Your task to perform on an android device: uninstall "Skype" Image 0: 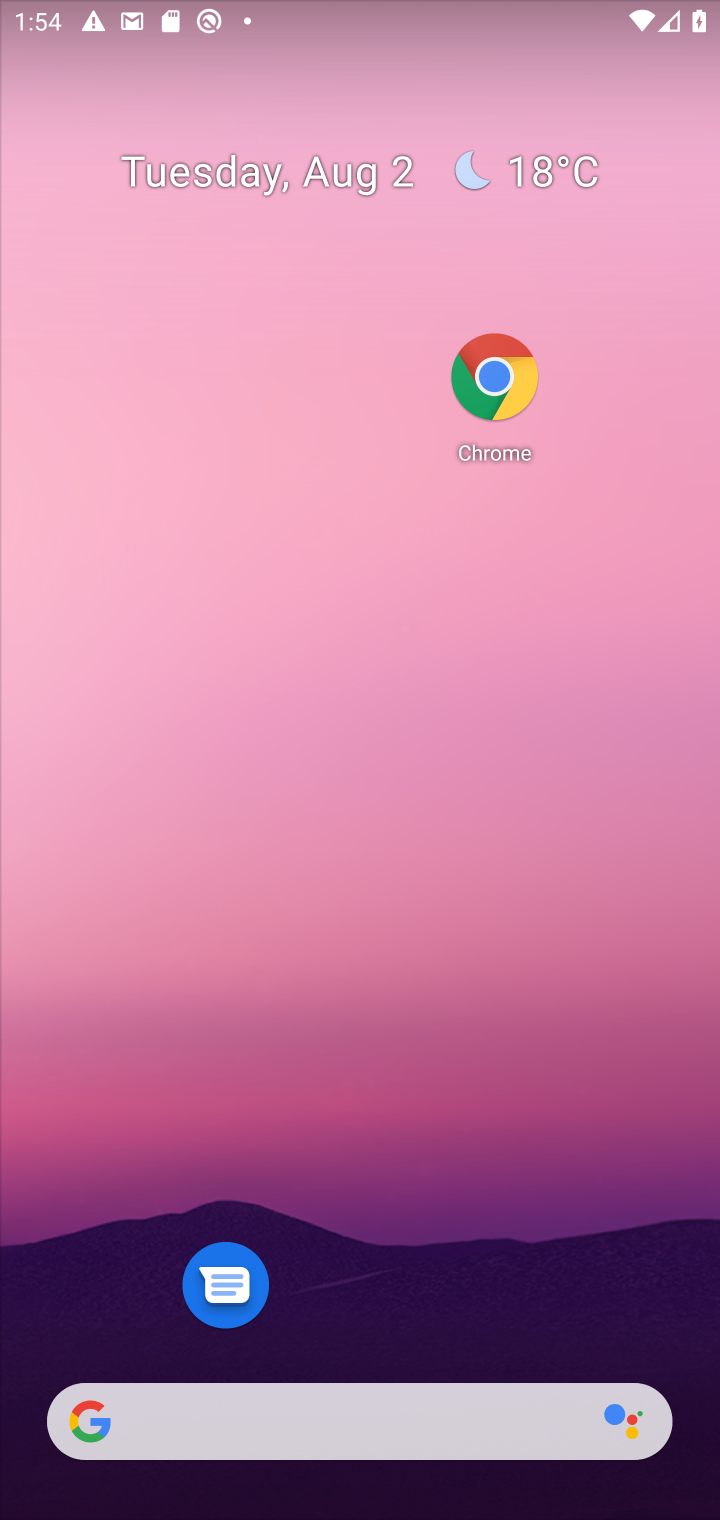
Step 0: press home button
Your task to perform on an android device: uninstall "Skype" Image 1: 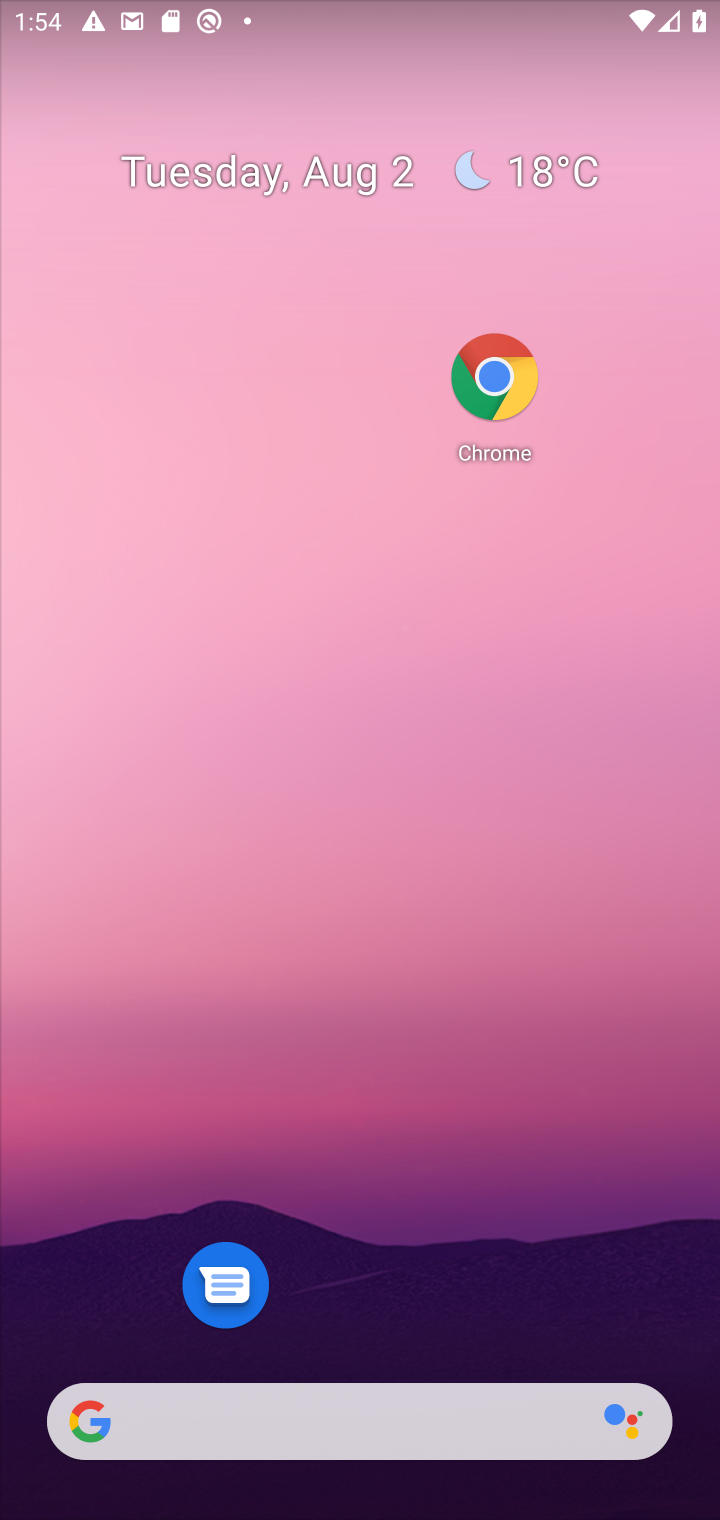
Step 1: drag from (432, 1268) to (644, 11)
Your task to perform on an android device: uninstall "Skype" Image 2: 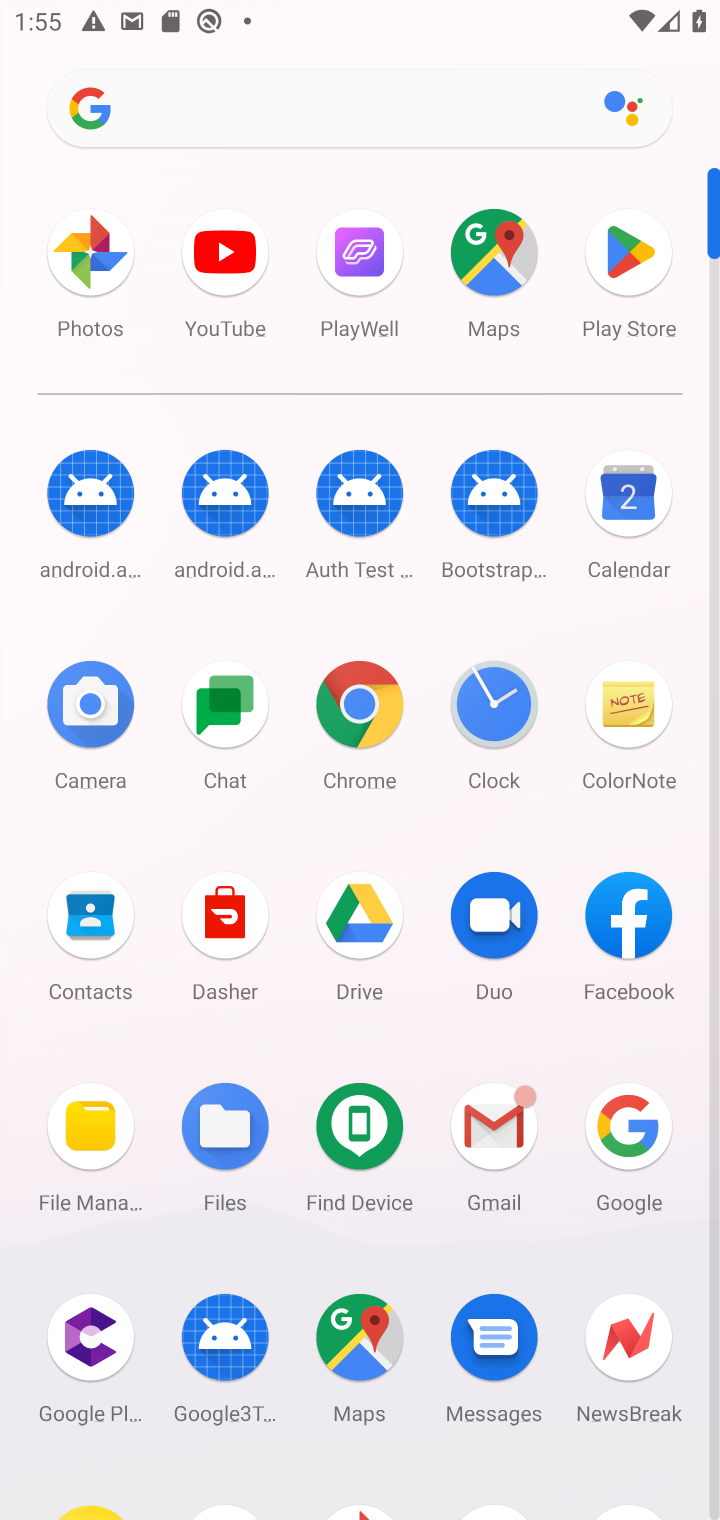
Step 2: click (638, 276)
Your task to perform on an android device: uninstall "Skype" Image 3: 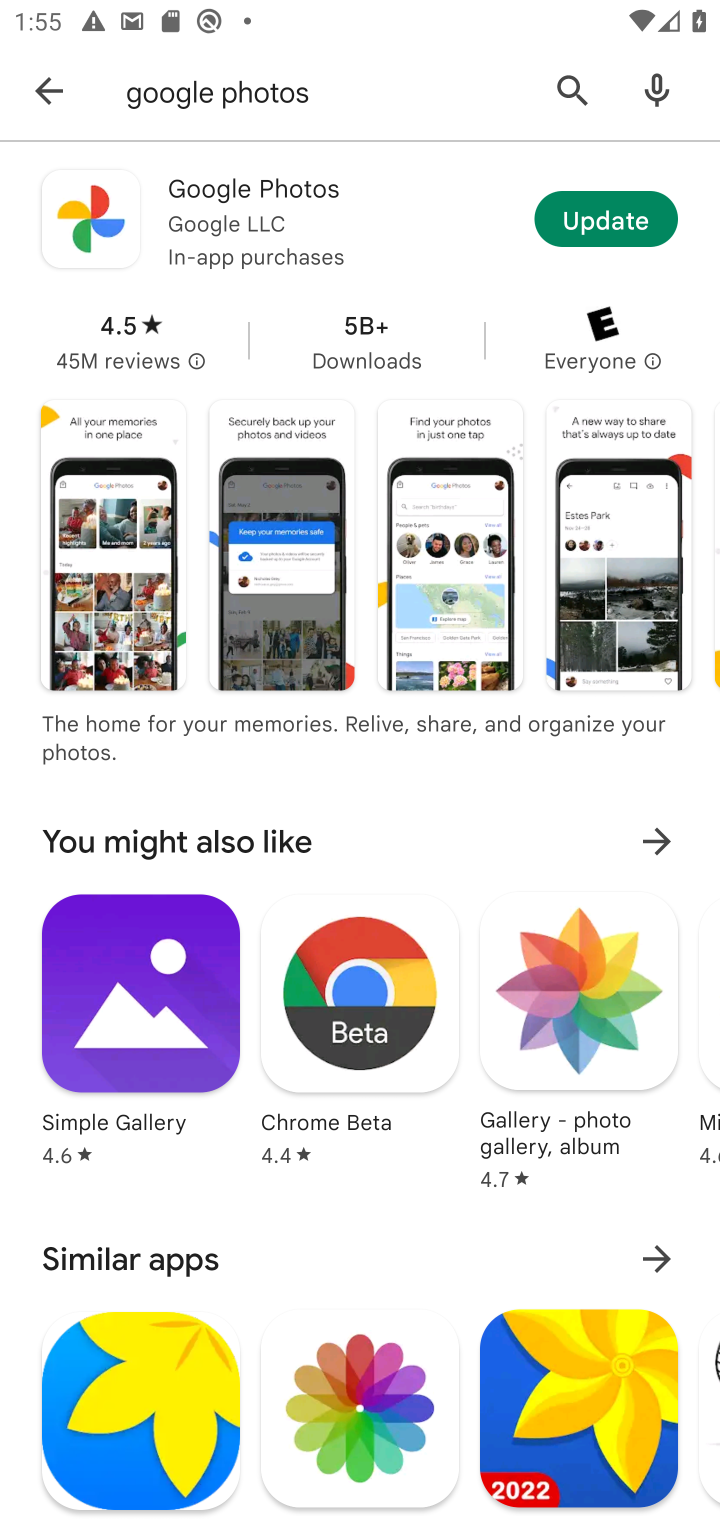
Step 3: click (578, 79)
Your task to perform on an android device: uninstall "Skype" Image 4: 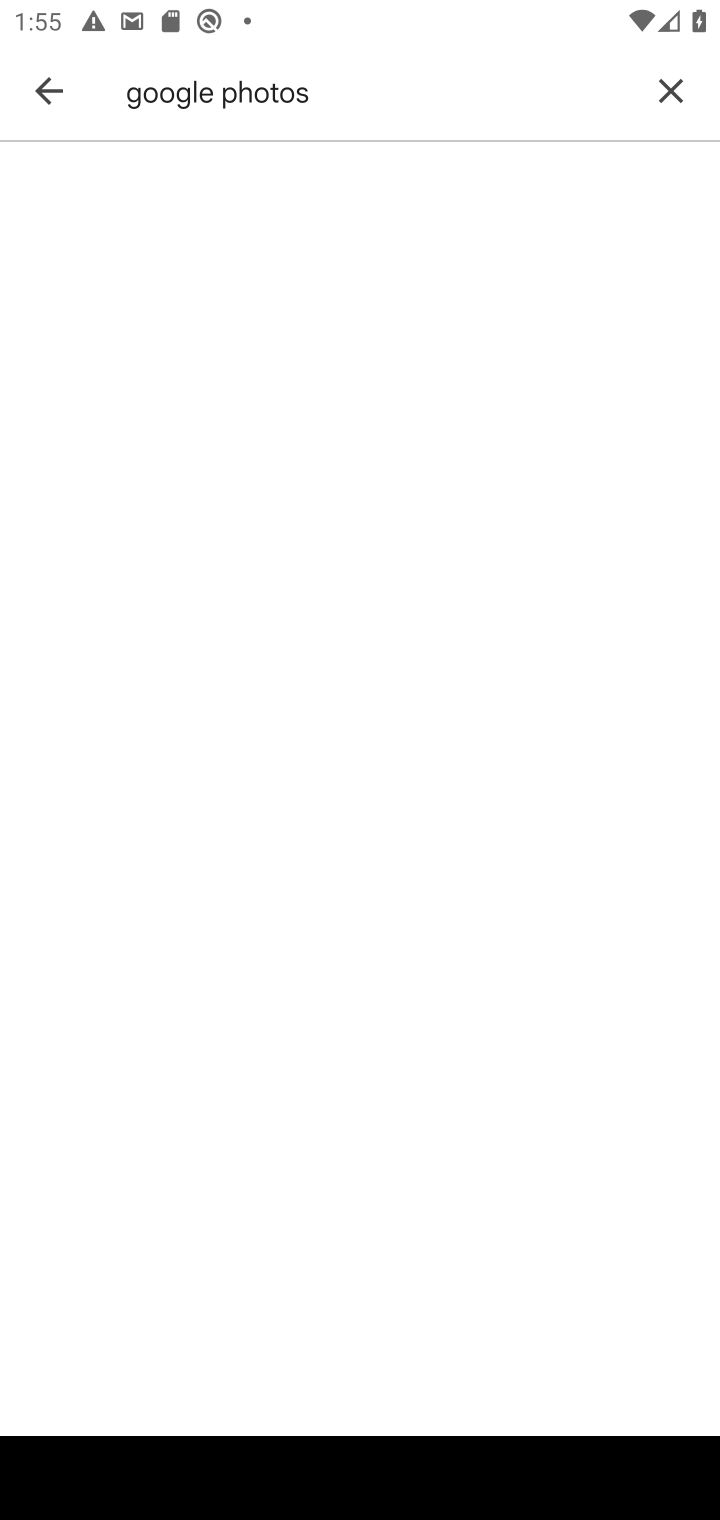
Step 4: click (666, 87)
Your task to perform on an android device: uninstall "Skype" Image 5: 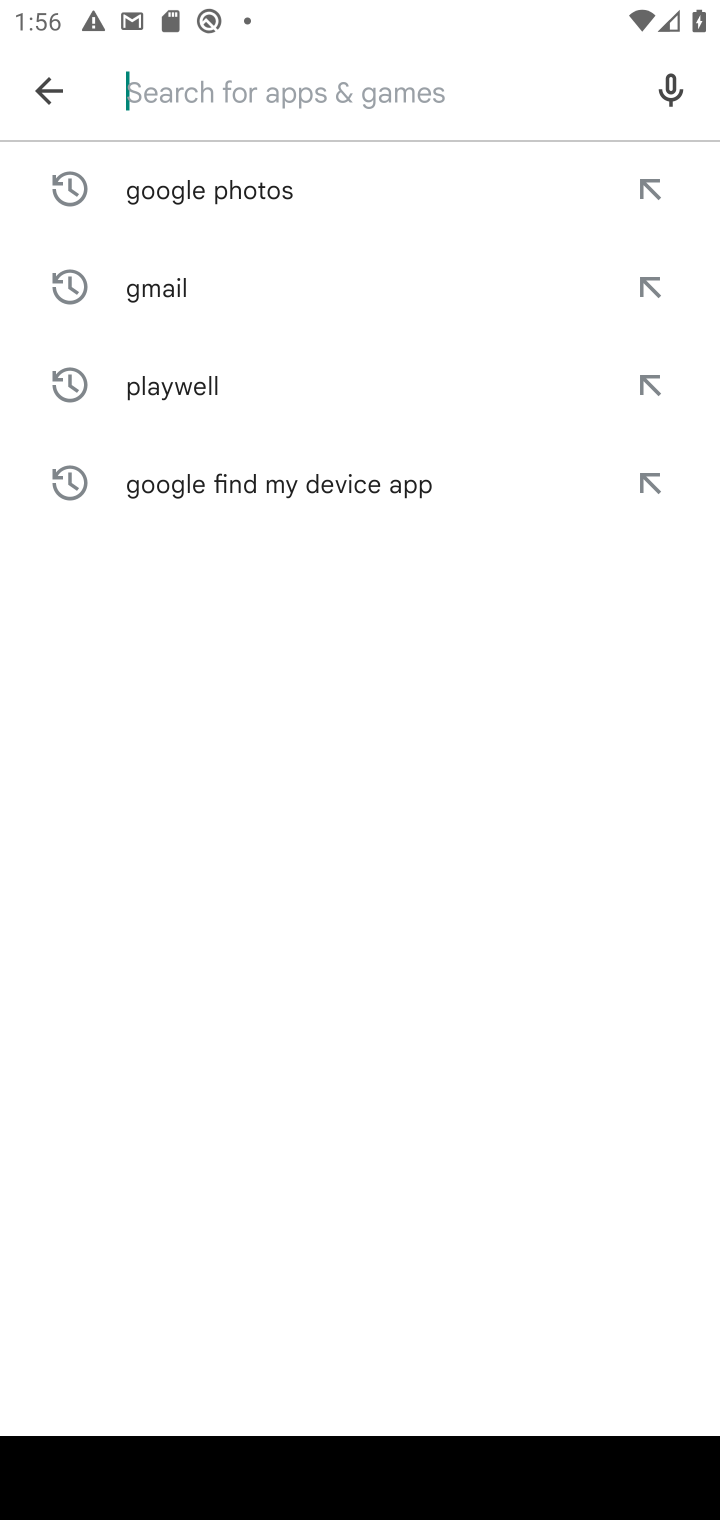
Step 5: type "Skype"
Your task to perform on an android device: uninstall "Skype" Image 6: 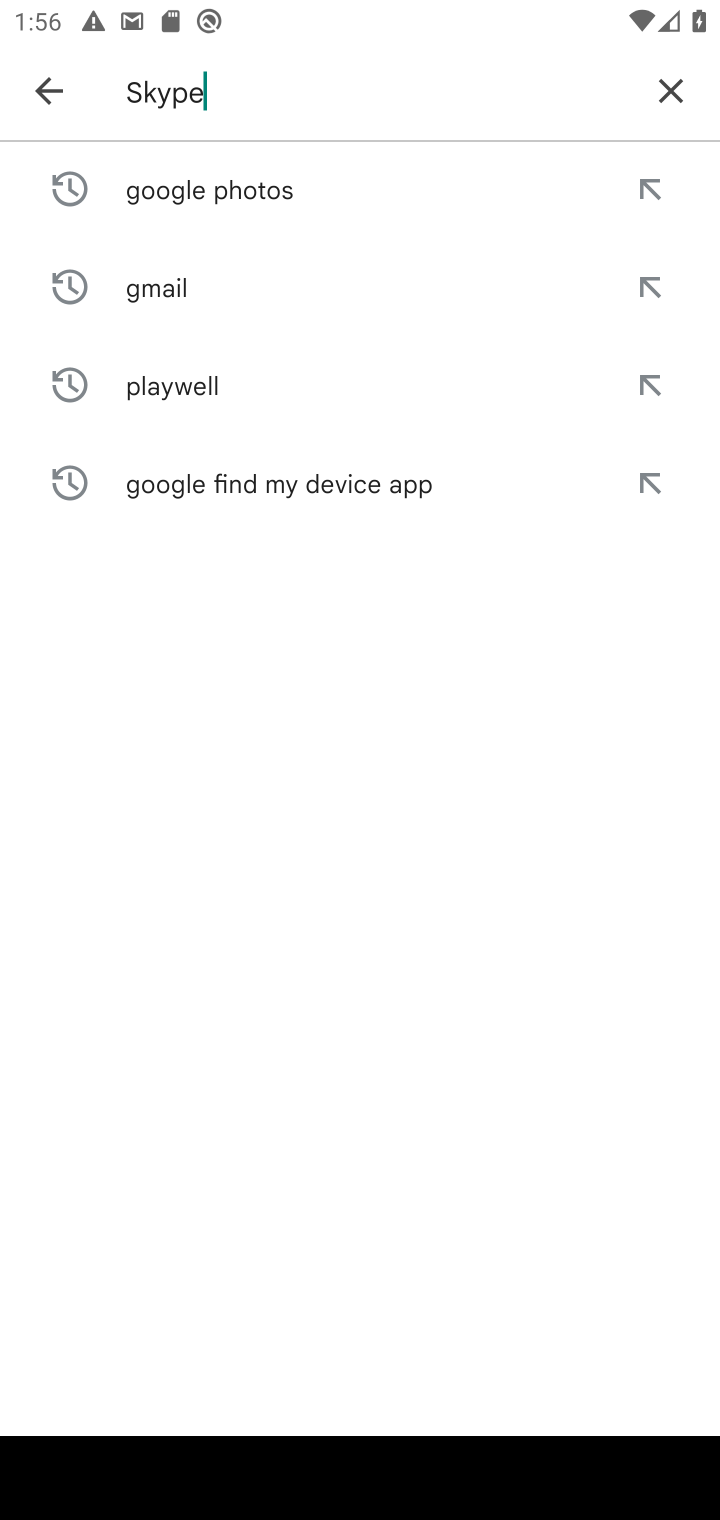
Step 6: type ""
Your task to perform on an android device: uninstall "Skype" Image 7: 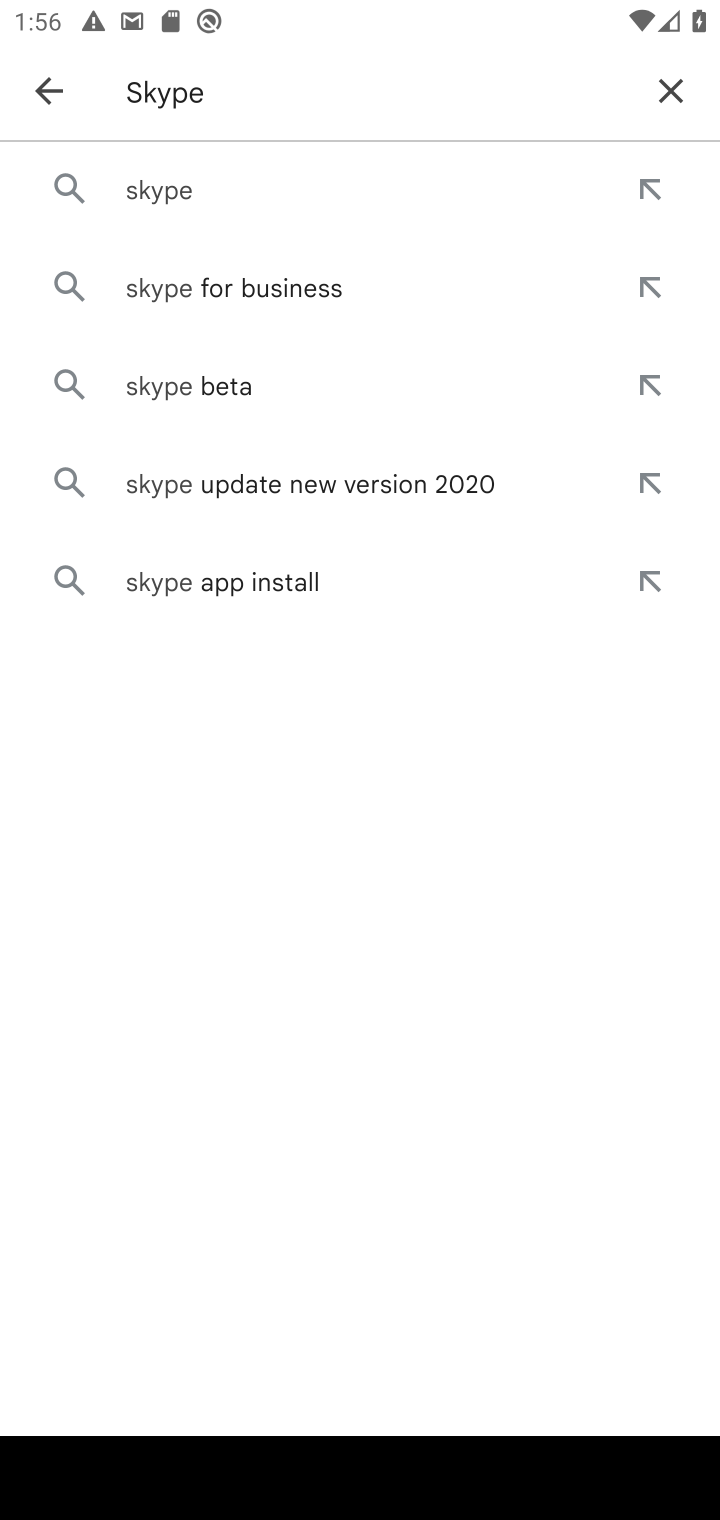
Step 7: click (158, 196)
Your task to perform on an android device: uninstall "Skype" Image 8: 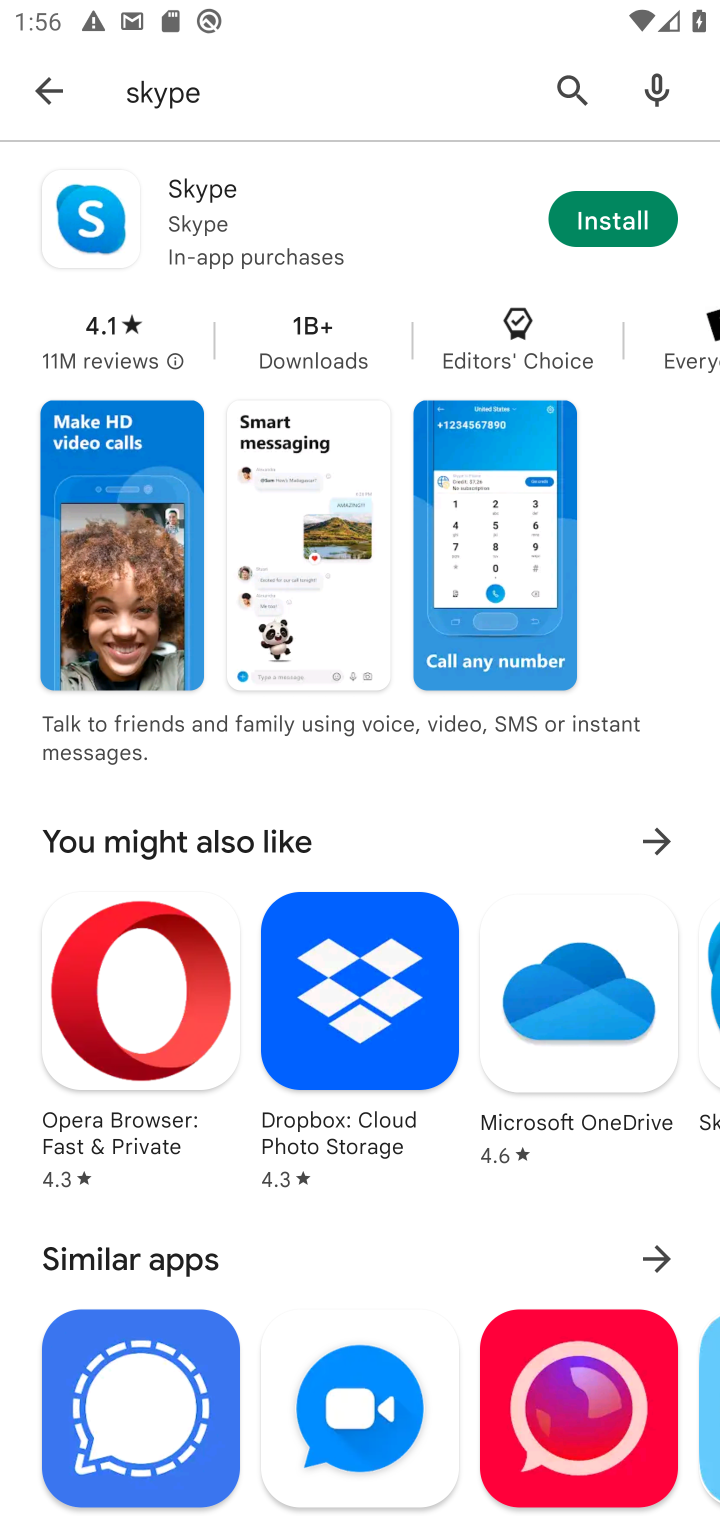
Step 8: task complete